Your task to perform on an android device: Who is the president of France? Image 0: 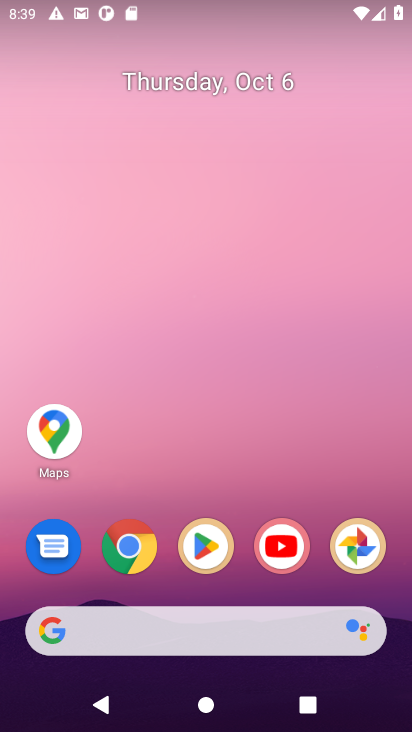
Step 0: click (128, 543)
Your task to perform on an android device: Who is the president of France? Image 1: 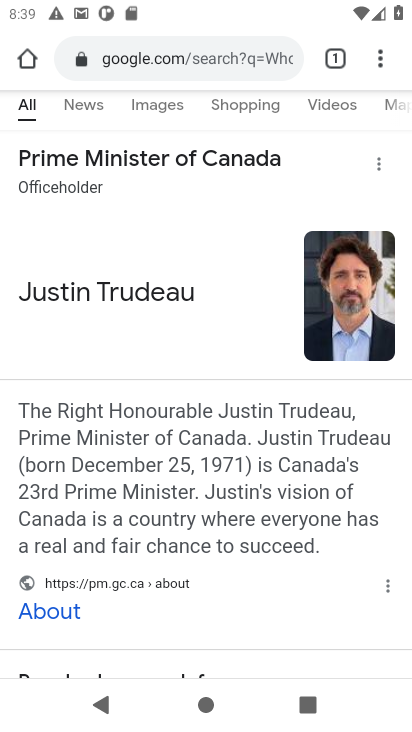
Step 1: click (216, 42)
Your task to perform on an android device: Who is the president of France? Image 2: 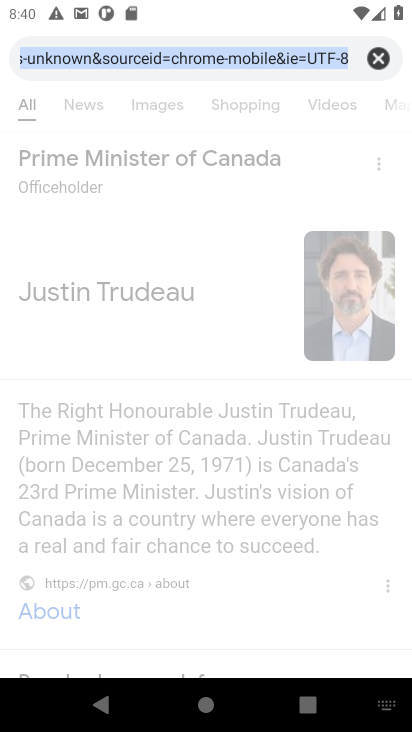
Step 2: click (375, 55)
Your task to perform on an android device: Who is the president of France? Image 3: 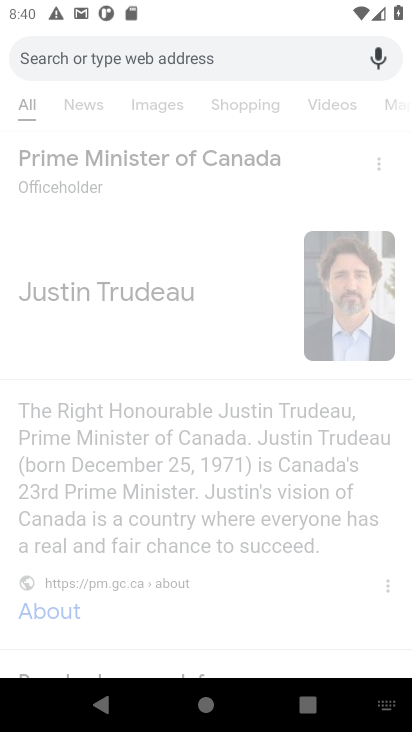
Step 3: type "Who is the president of France?"
Your task to perform on an android device: Who is the president of France? Image 4: 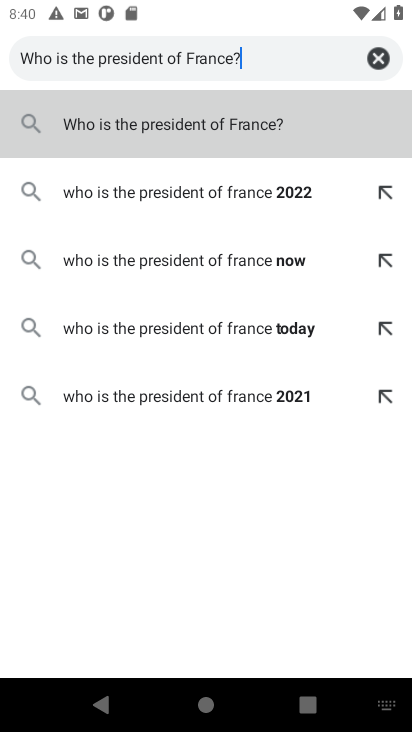
Step 4: click (201, 121)
Your task to perform on an android device: Who is the president of France? Image 5: 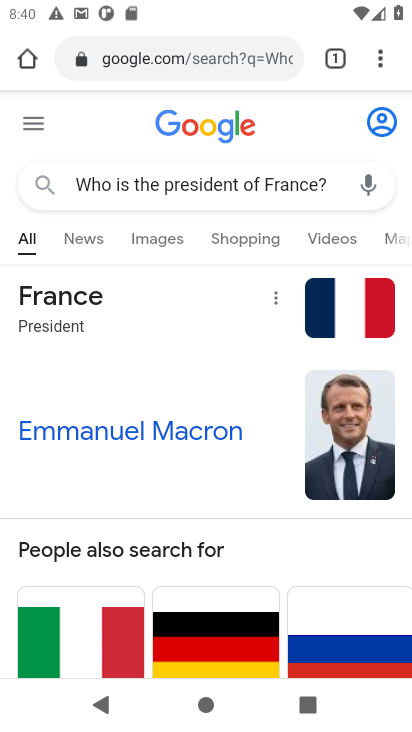
Step 5: click (126, 431)
Your task to perform on an android device: Who is the president of France? Image 6: 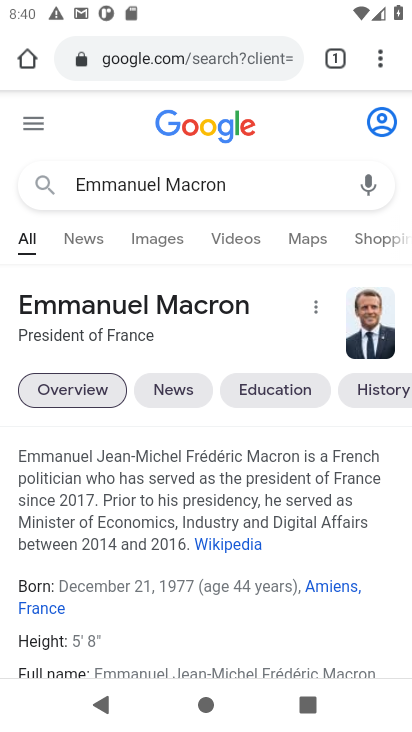
Step 6: drag from (231, 491) to (246, 276)
Your task to perform on an android device: Who is the president of France? Image 7: 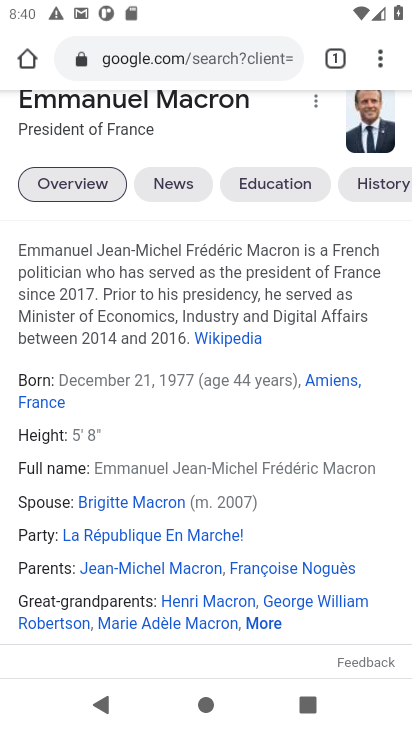
Step 7: click (227, 340)
Your task to perform on an android device: Who is the president of France? Image 8: 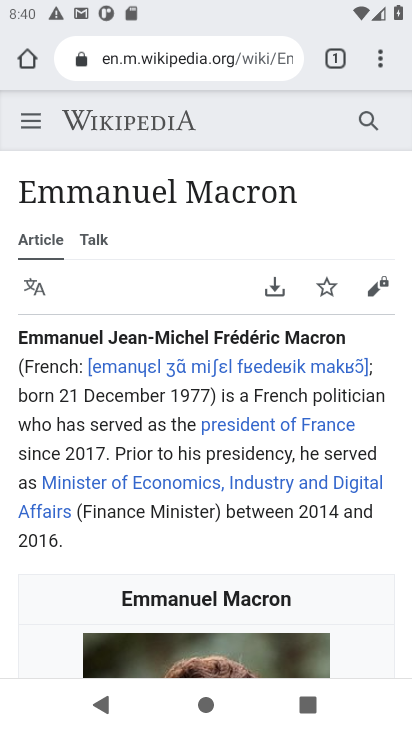
Step 8: task complete